Your task to perform on an android device: turn off notifications settings in the gmail app Image 0: 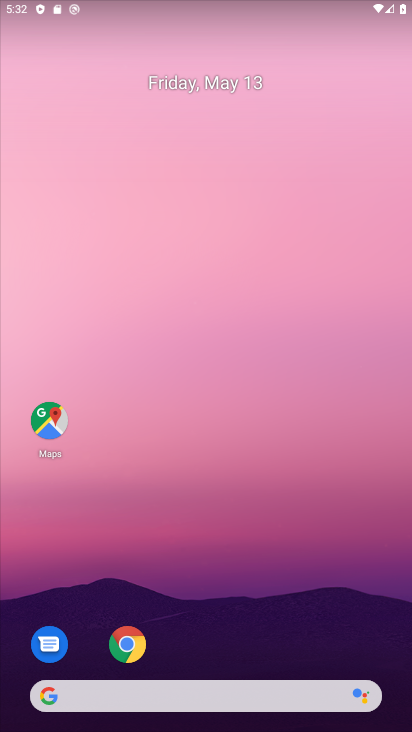
Step 0: drag from (199, 621) to (252, 151)
Your task to perform on an android device: turn off notifications settings in the gmail app Image 1: 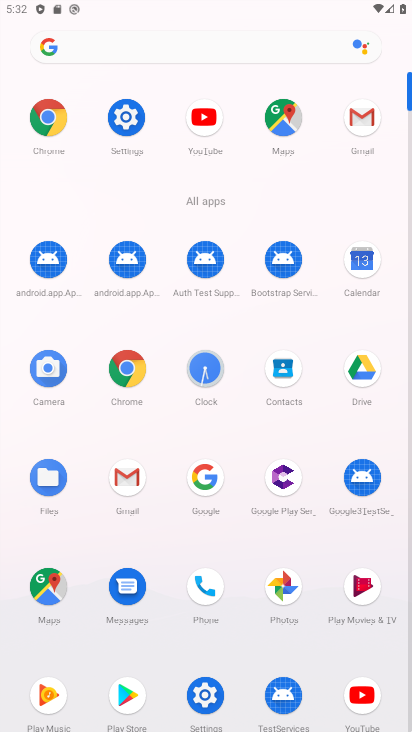
Step 1: click (120, 479)
Your task to perform on an android device: turn off notifications settings in the gmail app Image 2: 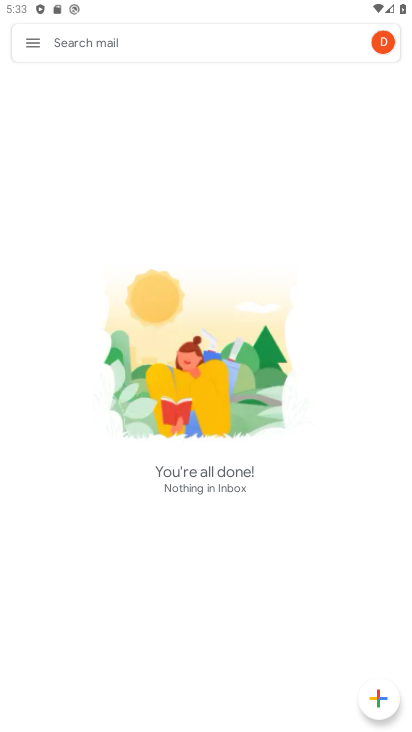
Step 2: click (31, 44)
Your task to perform on an android device: turn off notifications settings in the gmail app Image 3: 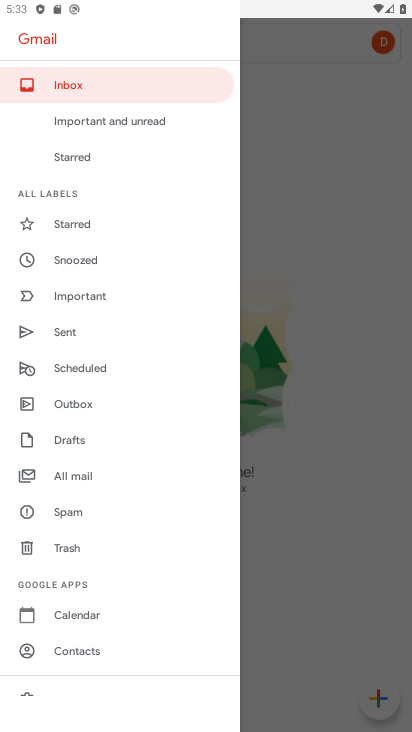
Step 3: drag from (95, 595) to (162, 219)
Your task to perform on an android device: turn off notifications settings in the gmail app Image 4: 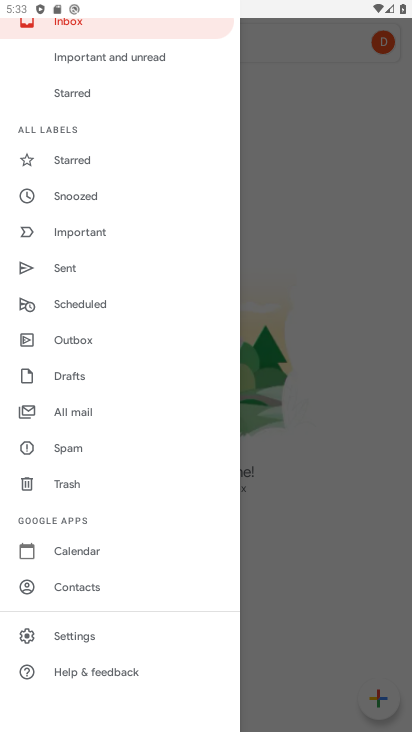
Step 4: click (71, 632)
Your task to perform on an android device: turn off notifications settings in the gmail app Image 5: 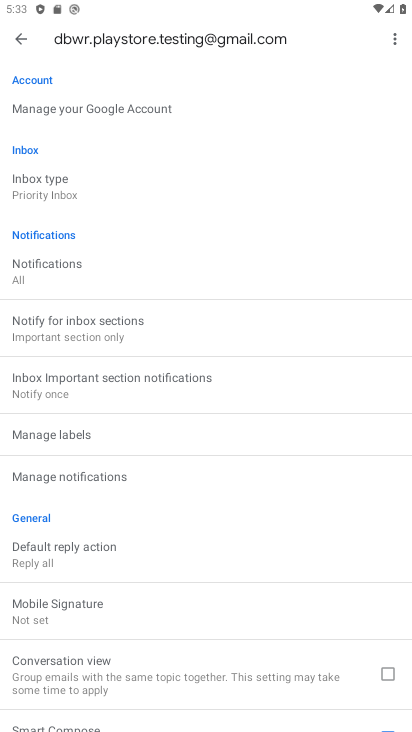
Step 5: click (17, 34)
Your task to perform on an android device: turn off notifications settings in the gmail app Image 6: 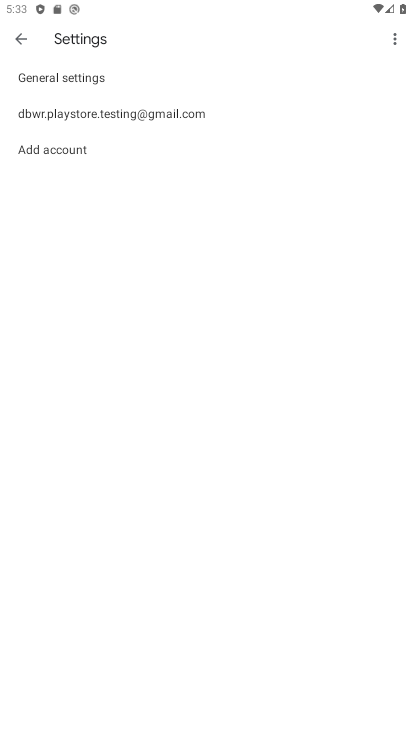
Step 6: click (99, 80)
Your task to perform on an android device: turn off notifications settings in the gmail app Image 7: 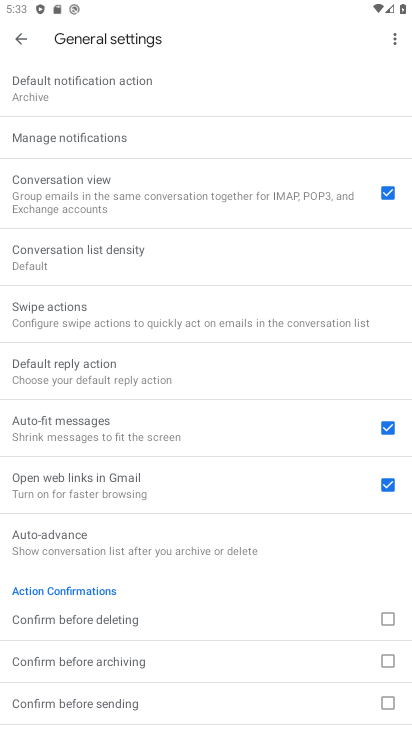
Step 7: click (86, 138)
Your task to perform on an android device: turn off notifications settings in the gmail app Image 8: 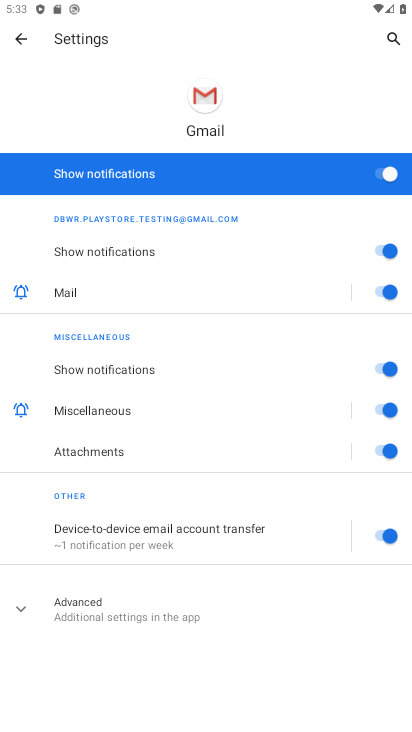
Step 8: click (360, 174)
Your task to perform on an android device: turn off notifications settings in the gmail app Image 9: 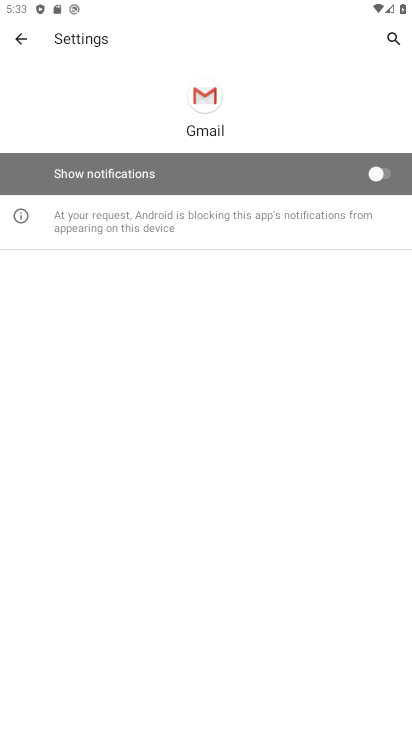
Step 9: task complete